Your task to perform on an android device: Show me the alarms in the clock app Image 0: 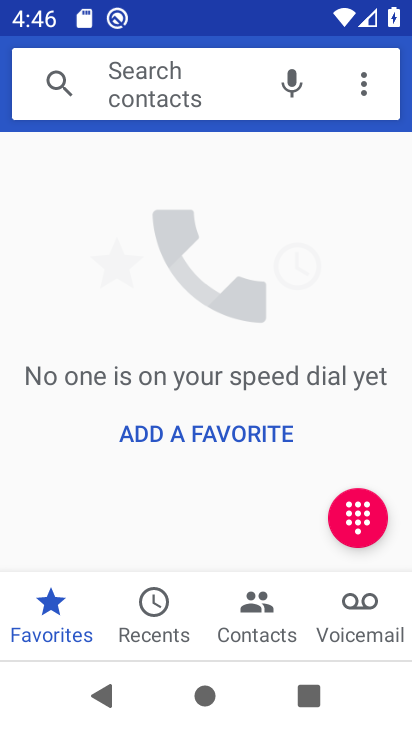
Step 0: press home button
Your task to perform on an android device: Show me the alarms in the clock app Image 1: 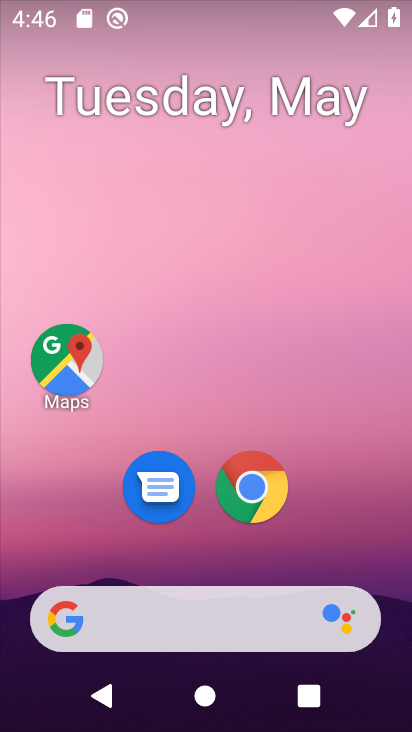
Step 1: drag from (349, 504) to (348, 240)
Your task to perform on an android device: Show me the alarms in the clock app Image 2: 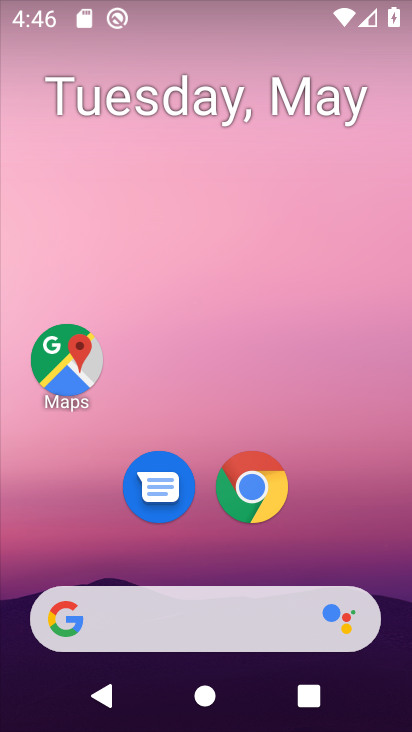
Step 2: drag from (301, 545) to (285, 100)
Your task to perform on an android device: Show me the alarms in the clock app Image 3: 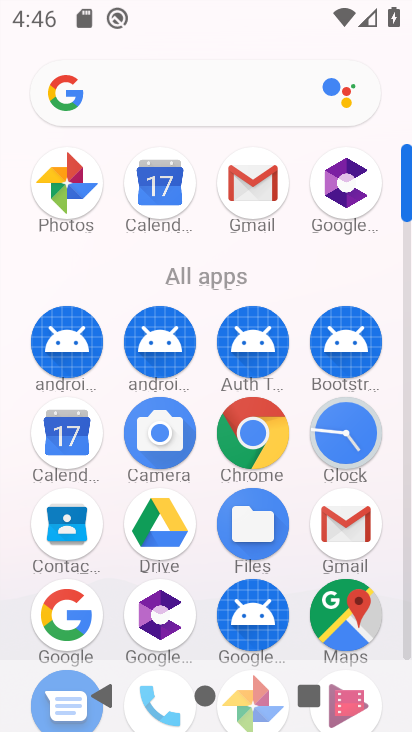
Step 3: click (348, 448)
Your task to perform on an android device: Show me the alarms in the clock app Image 4: 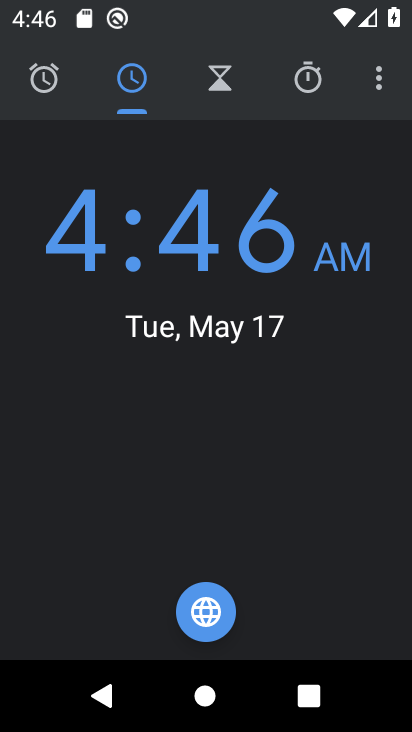
Step 4: click (57, 84)
Your task to perform on an android device: Show me the alarms in the clock app Image 5: 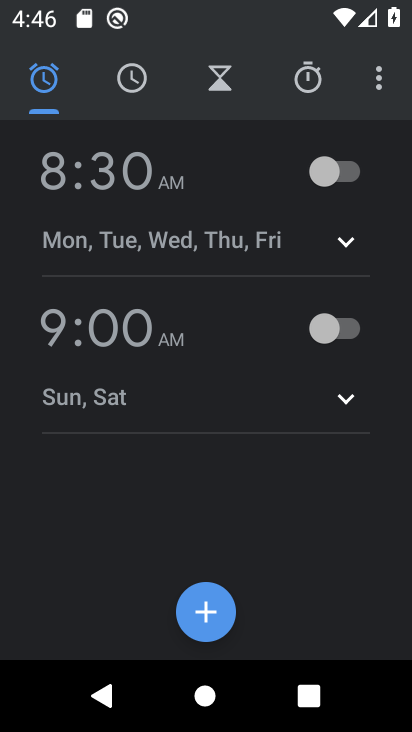
Step 5: task complete